Your task to perform on an android device: open app "Fetch Rewards" Image 0: 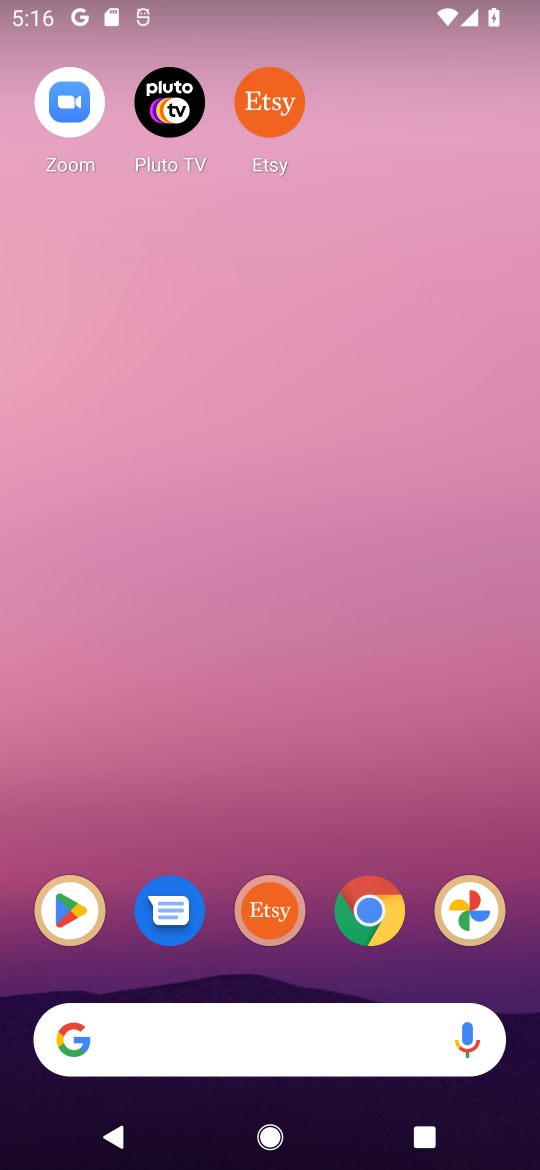
Step 0: click (87, 919)
Your task to perform on an android device: open app "Fetch Rewards" Image 1: 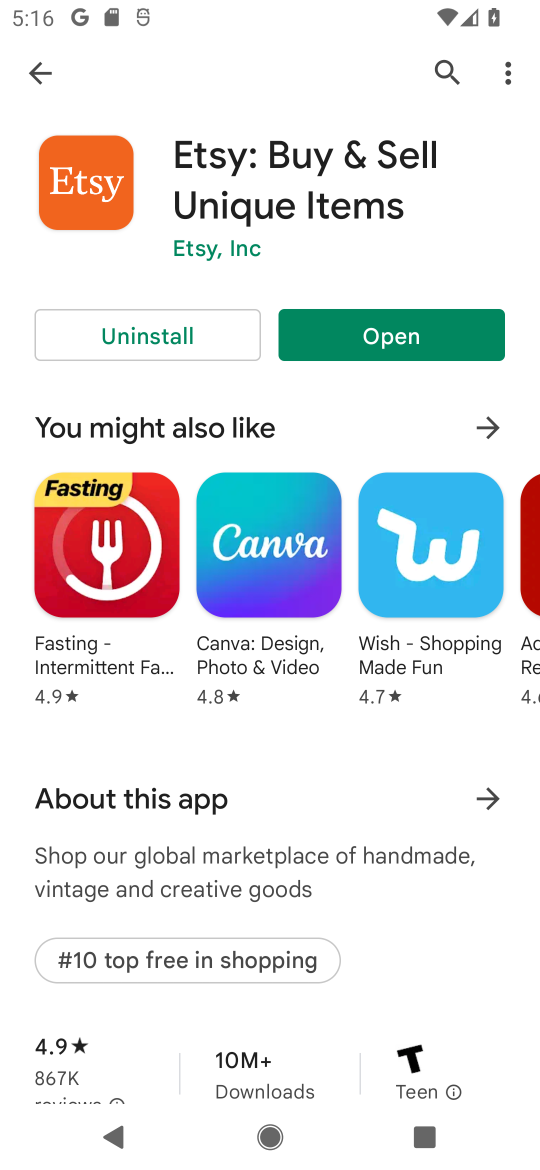
Step 1: click (440, 70)
Your task to perform on an android device: open app "Fetch Rewards" Image 2: 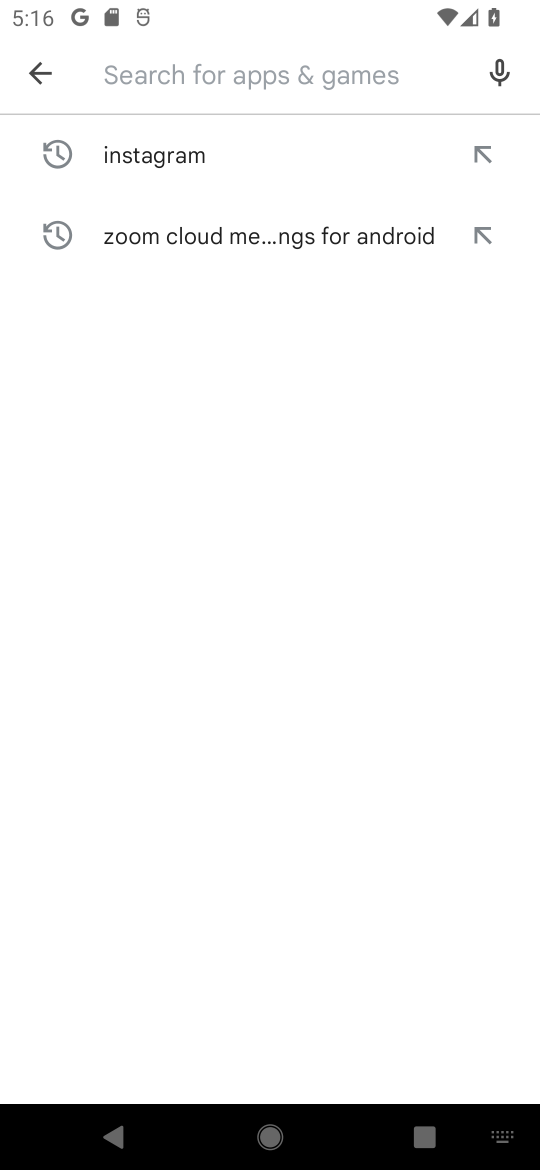
Step 2: type "Fetch Rewards"
Your task to perform on an android device: open app "Fetch Rewards" Image 3: 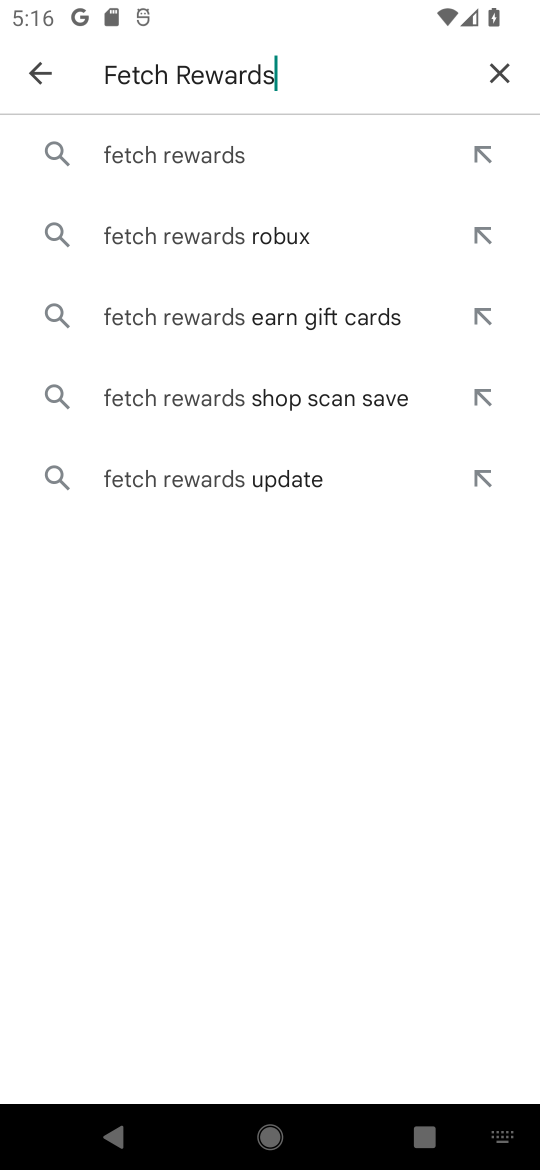
Step 3: click (348, 153)
Your task to perform on an android device: open app "Fetch Rewards" Image 4: 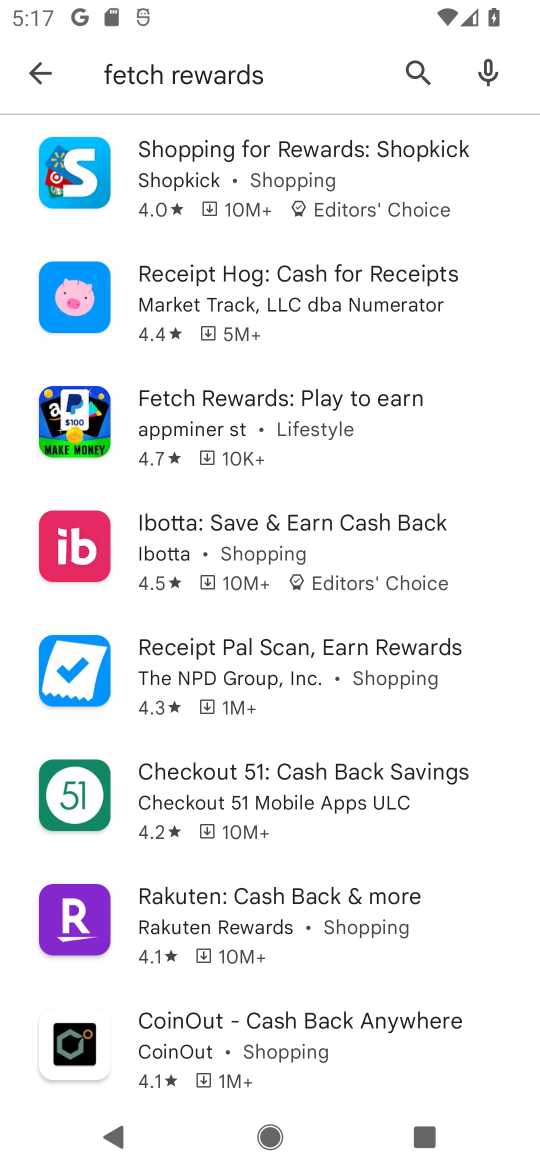
Step 4: task complete